Your task to perform on an android device: clear history in the chrome app Image 0: 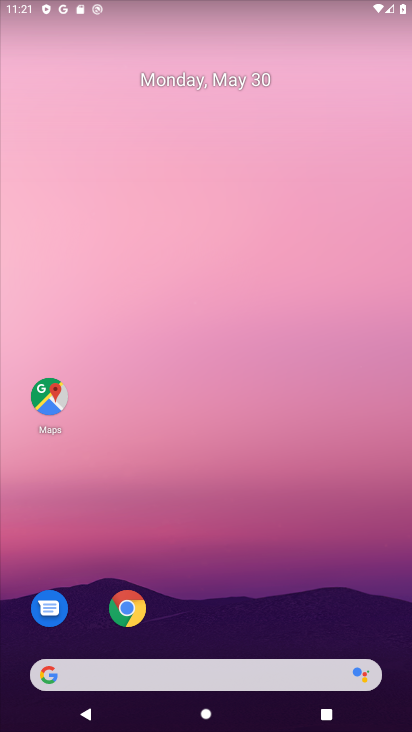
Step 0: click (133, 609)
Your task to perform on an android device: clear history in the chrome app Image 1: 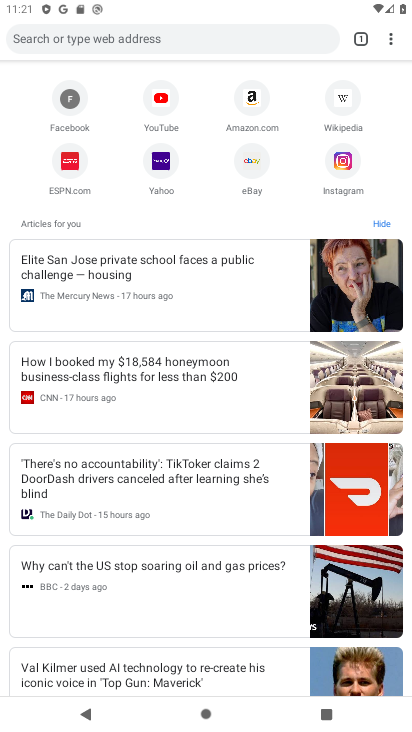
Step 1: click (384, 40)
Your task to perform on an android device: clear history in the chrome app Image 2: 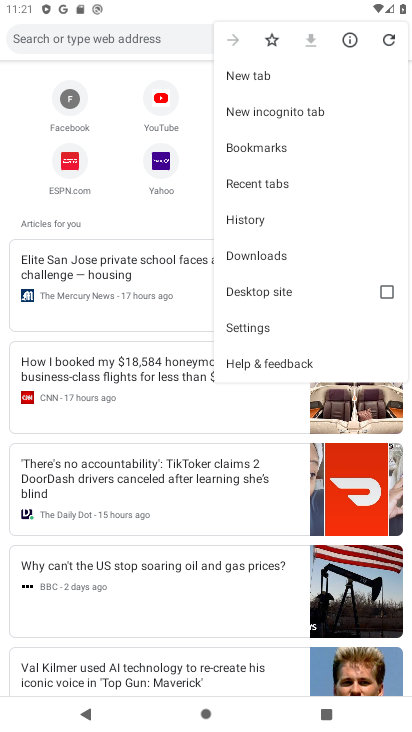
Step 2: click (256, 221)
Your task to perform on an android device: clear history in the chrome app Image 3: 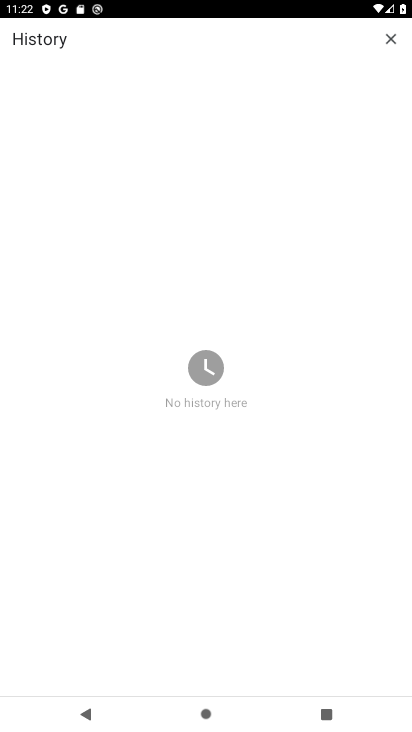
Step 3: task complete